Your task to perform on an android device: toggle notification dots Image 0: 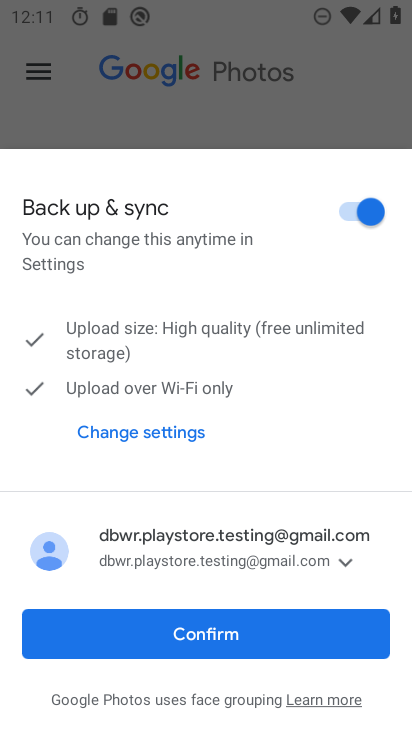
Step 0: press back button
Your task to perform on an android device: toggle notification dots Image 1: 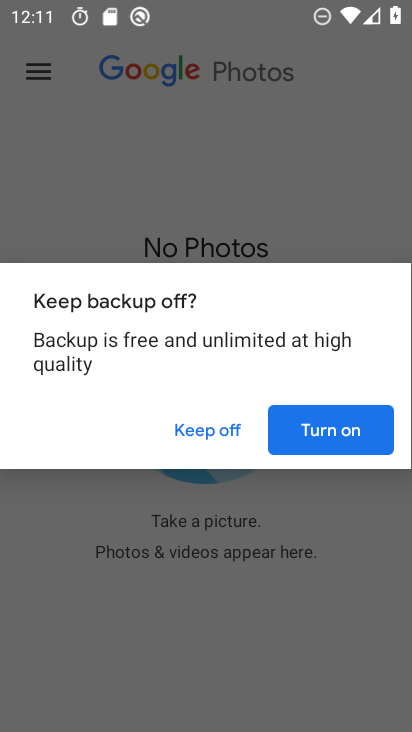
Step 1: press home button
Your task to perform on an android device: toggle notification dots Image 2: 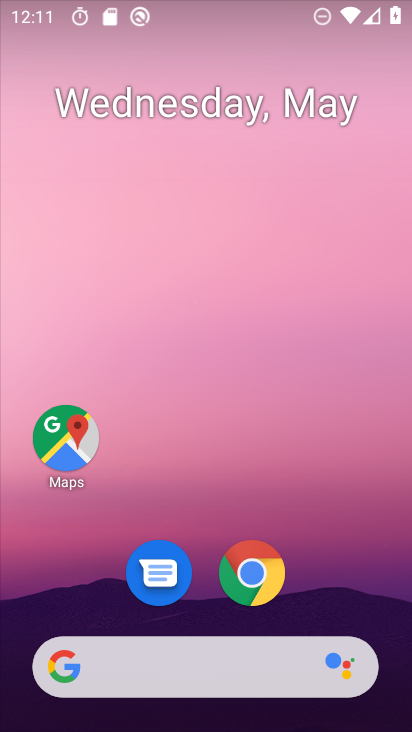
Step 2: drag from (332, 578) to (297, 55)
Your task to perform on an android device: toggle notification dots Image 3: 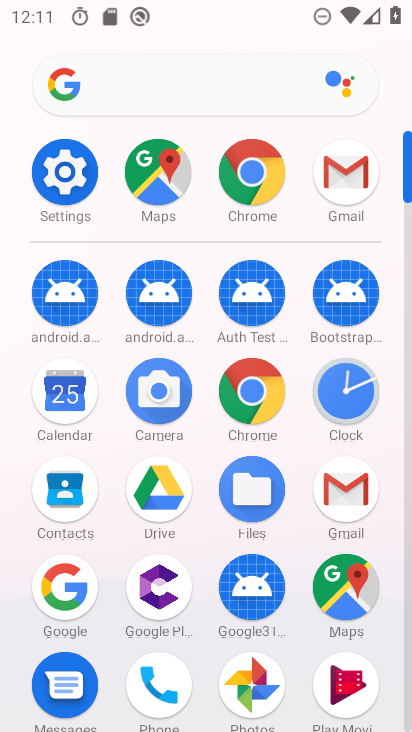
Step 3: drag from (21, 495) to (26, 229)
Your task to perform on an android device: toggle notification dots Image 4: 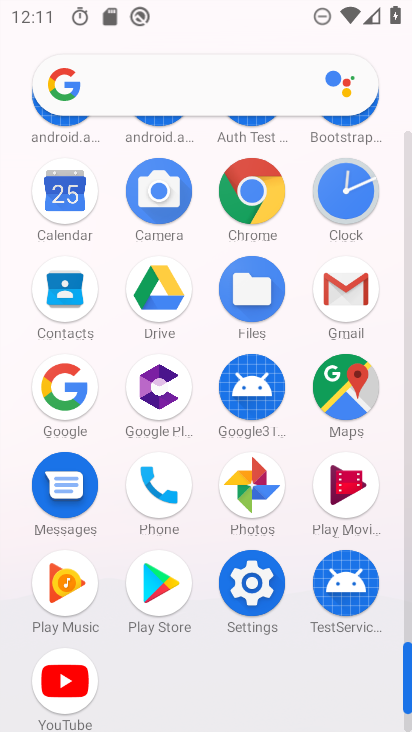
Step 4: click (254, 582)
Your task to perform on an android device: toggle notification dots Image 5: 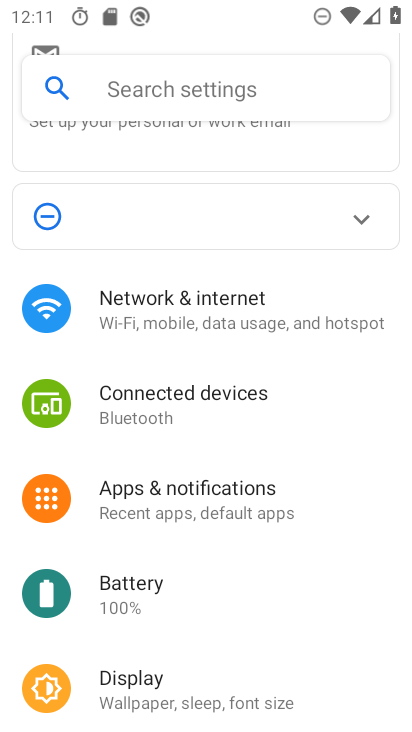
Step 5: click (245, 487)
Your task to perform on an android device: toggle notification dots Image 6: 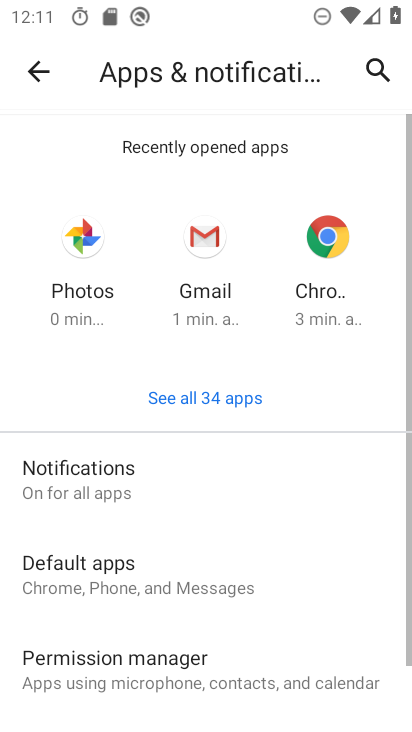
Step 6: click (140, 473)
Your task to perform on an android device: toggle notification dots Image 7: 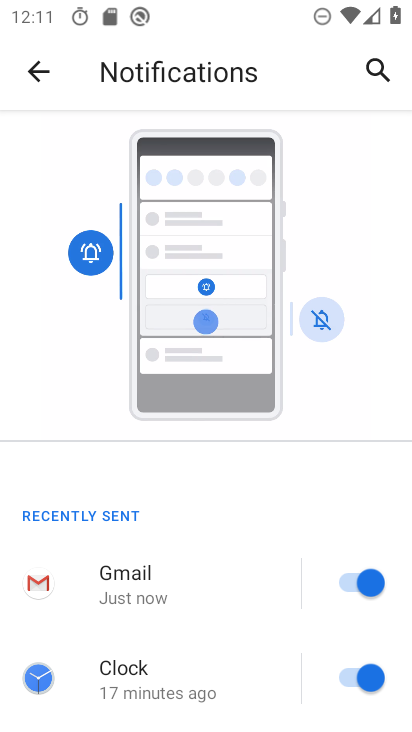
Step 7: drag from (284, 548) to (280, 149)
Your task to perform on an android device: toggle notification dots Image 8: 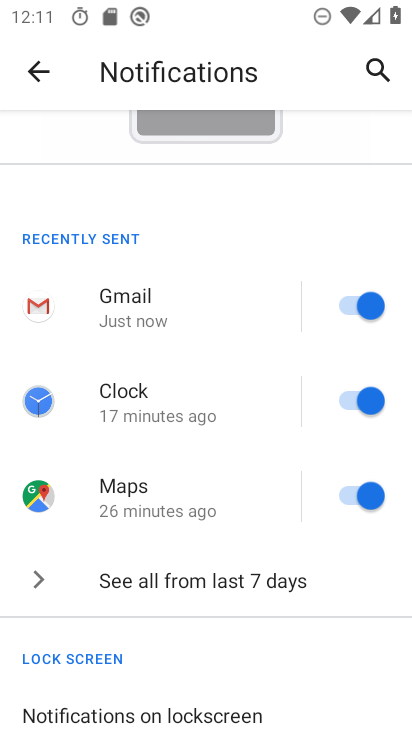
Step 8: drag from (233, 570) to (247, 136)
Your task to perform on an android device: toggle notification dots Image 9: 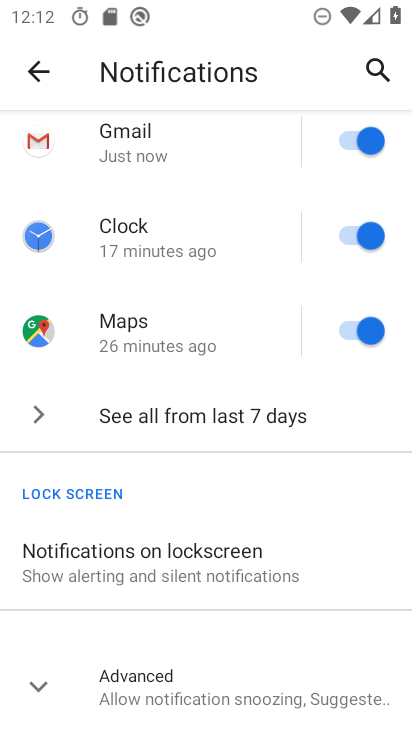
Step 9: click (142, 673)
Your task to perform on an android device: toggle notification dots Image 10: 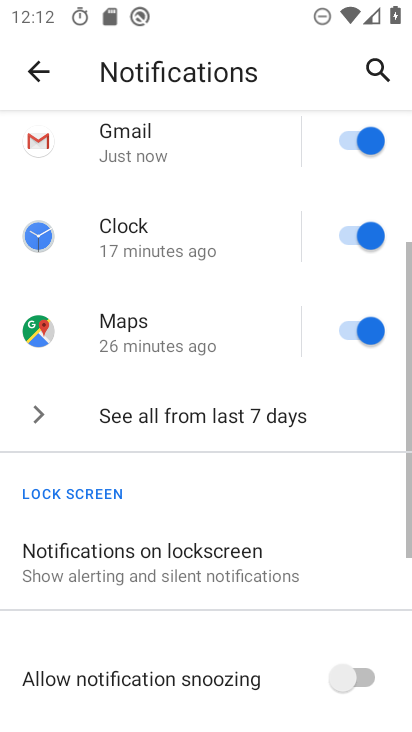
Step 10: drag from (236, 647) to (284, 183)
Your task to perform on an android device: toggle notification dots Image 11: 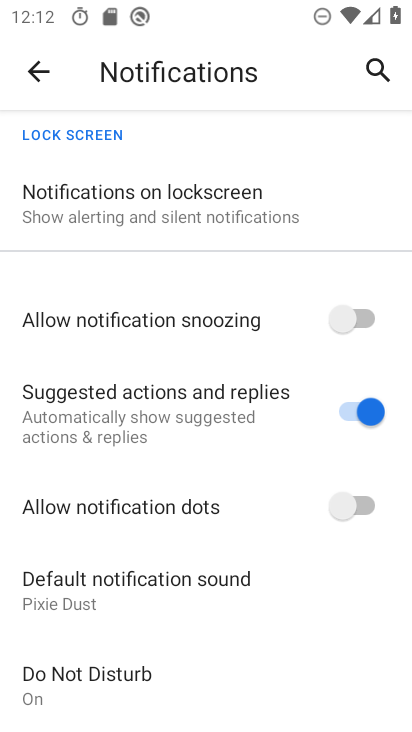
Step 11: click (349, 511)
Your task to perform on an android device: toggle notification dots Image 12: 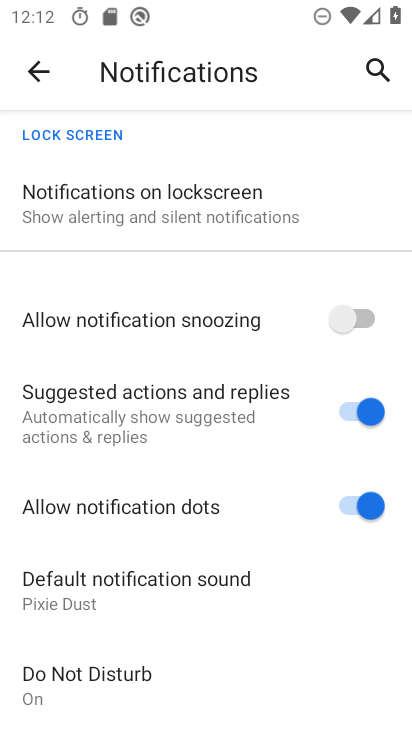
Step 12: task complete